Your task to perform on an android device: change alarm snooze length Image 0: 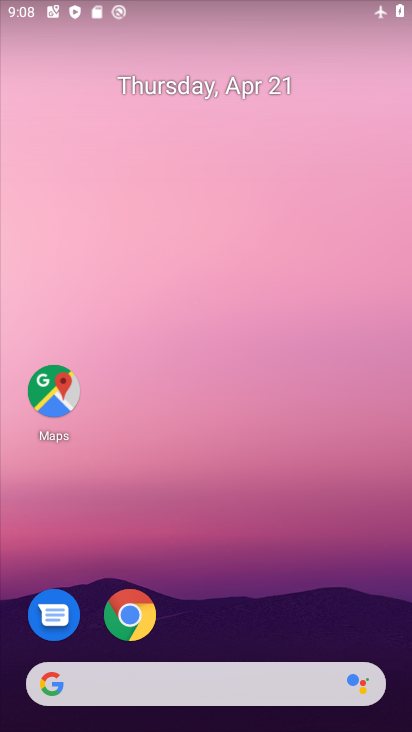
Step 0: drag from (220, 723) to (236, 135)
Your task to perform on an android device: change alarm snooze length Image 1: 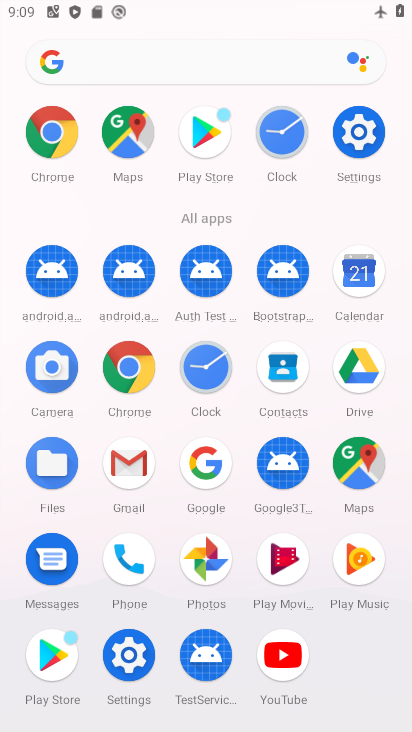
Step 1: click (202, 373)
Your task to perform on an android device: change alarm snooze length Image 2: 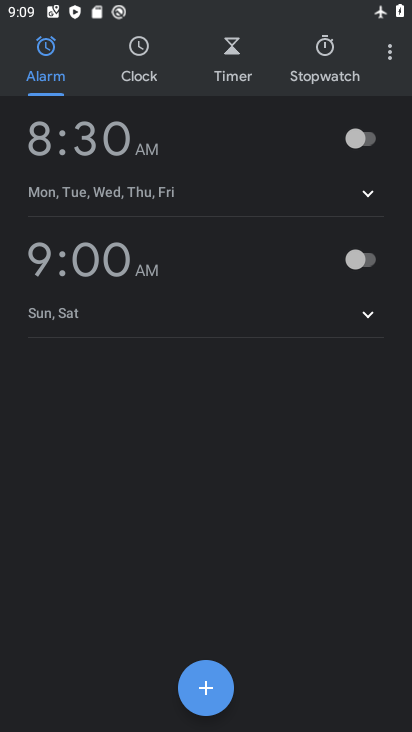
Step 2: click (391, 59)
Your task to perform on an android device: change alarm snooze length Image 3: 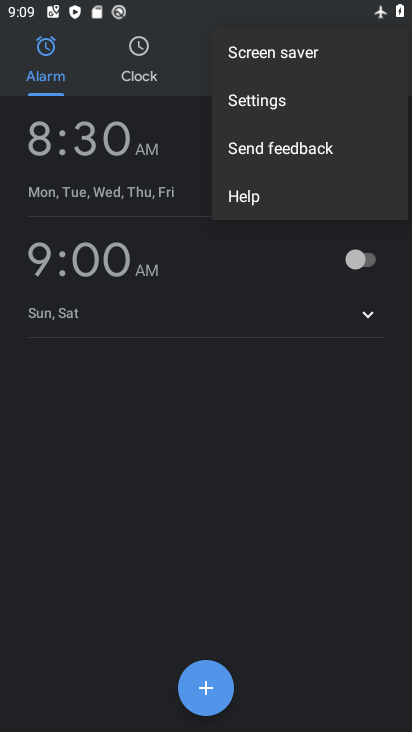
Step 3: click (259, 101)
Your task to perform on an android device: change alarm snooze length Image 4: 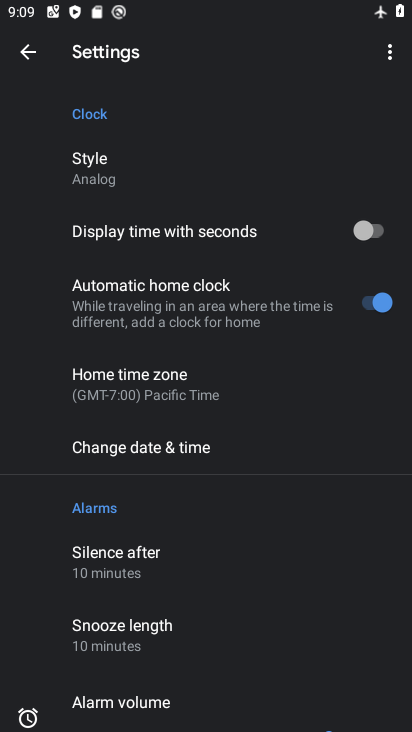
Step 4: click (154, 630)
Your task to perform on an android device: change alarm snooze length Image 5: 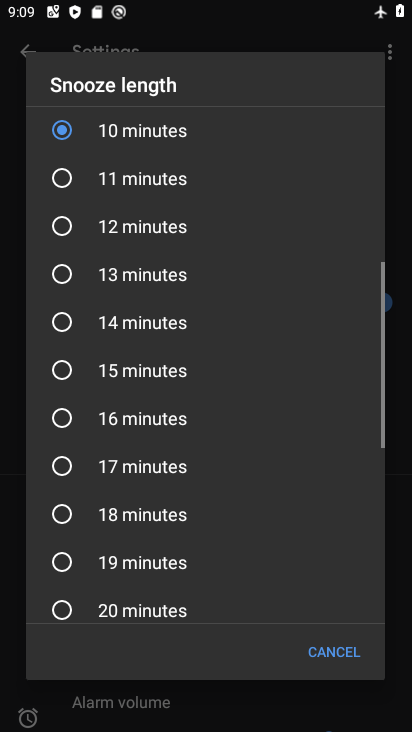
Step 5: click (62, 319)
Your task to perform on an android device: change alarm snooze length Image 6: 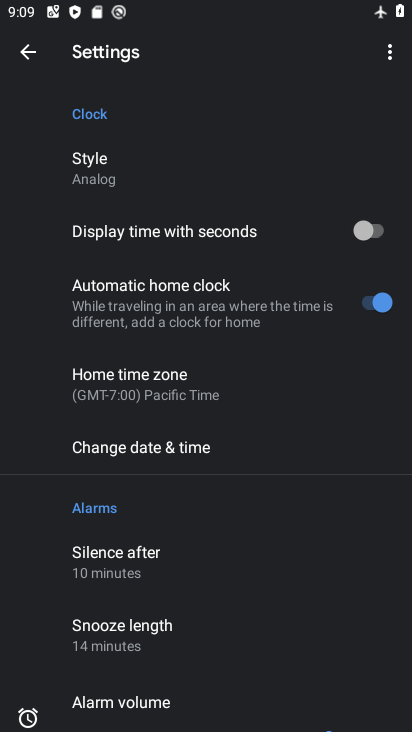
Step 6: task complete